Your task to perform on an android device: Clear all items from cart on newegg. Search for usb-c on newegg, select the first entry, add it to the cart, then select checkout. Image 0: 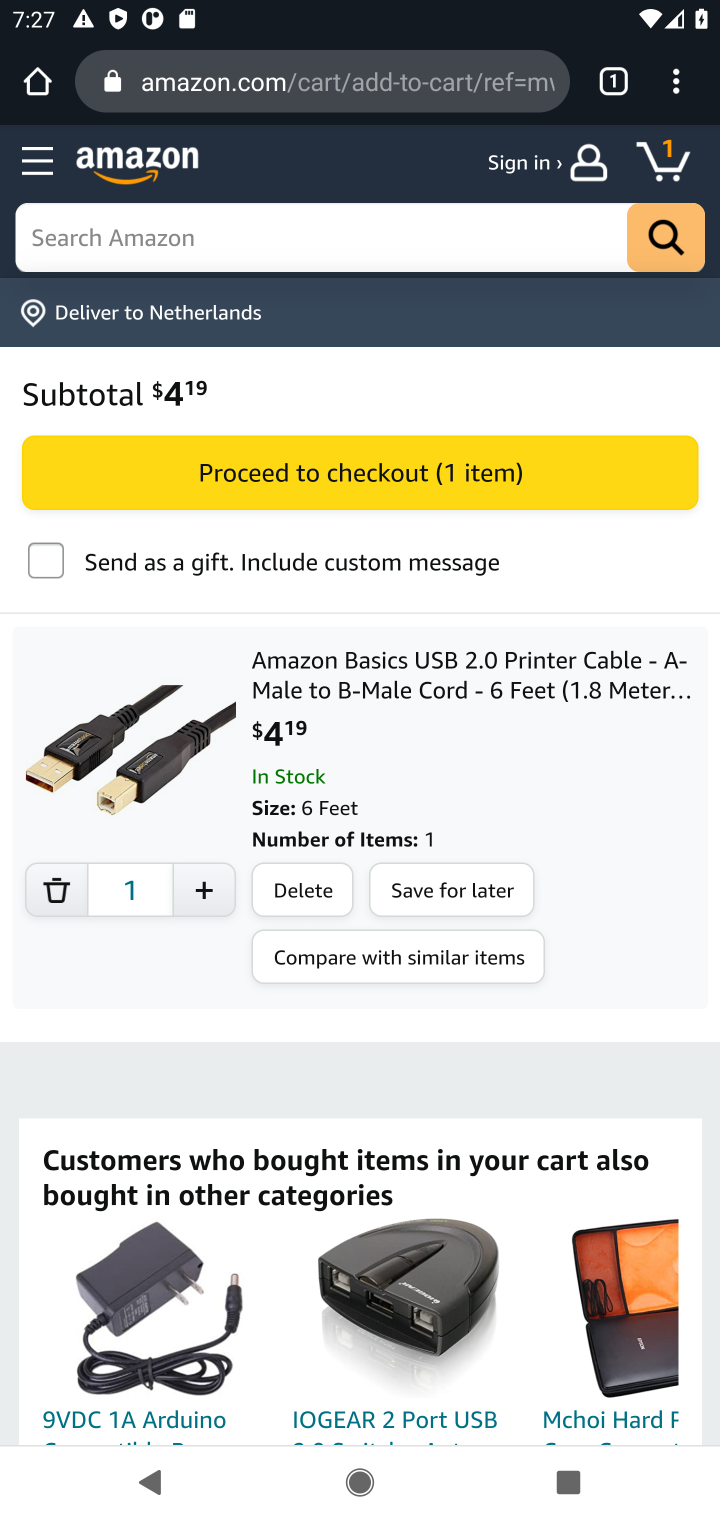
Step 0: click (236, 81)
Your task to perform on an android device: Clear all items from cart on newegg. Search for usb-c on newegg, select the first entry, add it to the cart, then select checkout. Image 1: 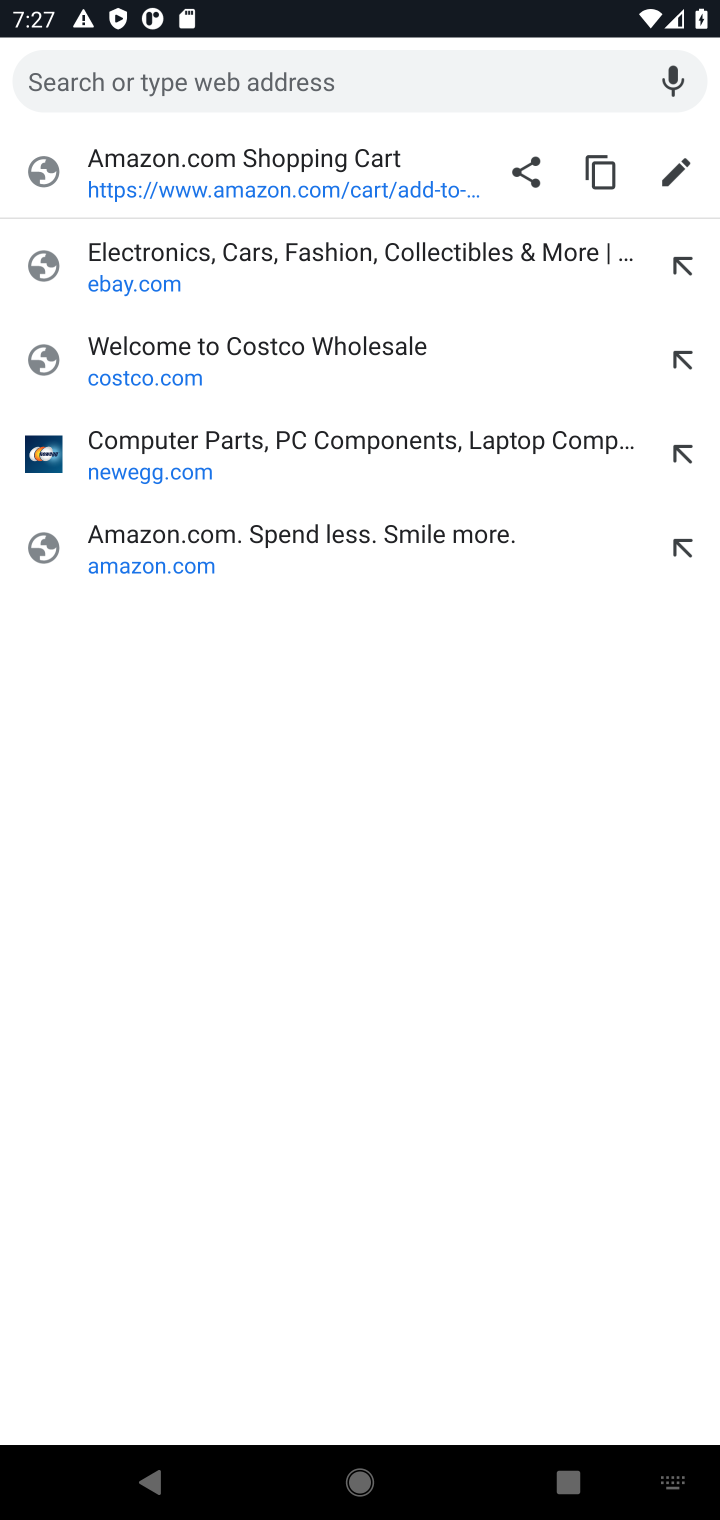
Step 1: click (115, 449)
Your task to perform on an android device: Clear all items from cart on newegg. Search for usb-c on newegg, select the first entry, add it to the cart, then select checkout. Image 2: 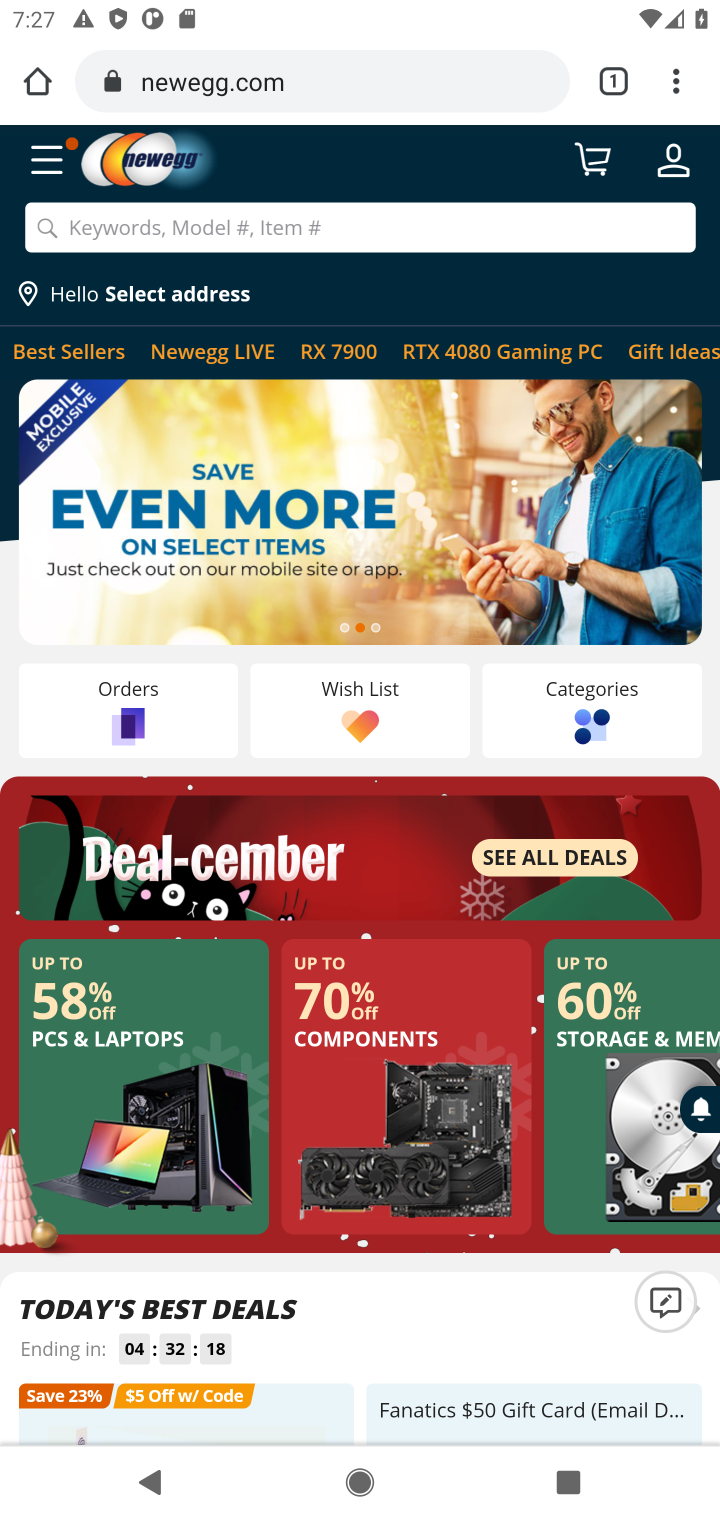
Step 2: click (598, 160)
Your task to perform on an android device: Clear all items from cart on newegg. Search for usb-c on newegg, select the first entry, add it to the cart, then select checkout. Image 3: 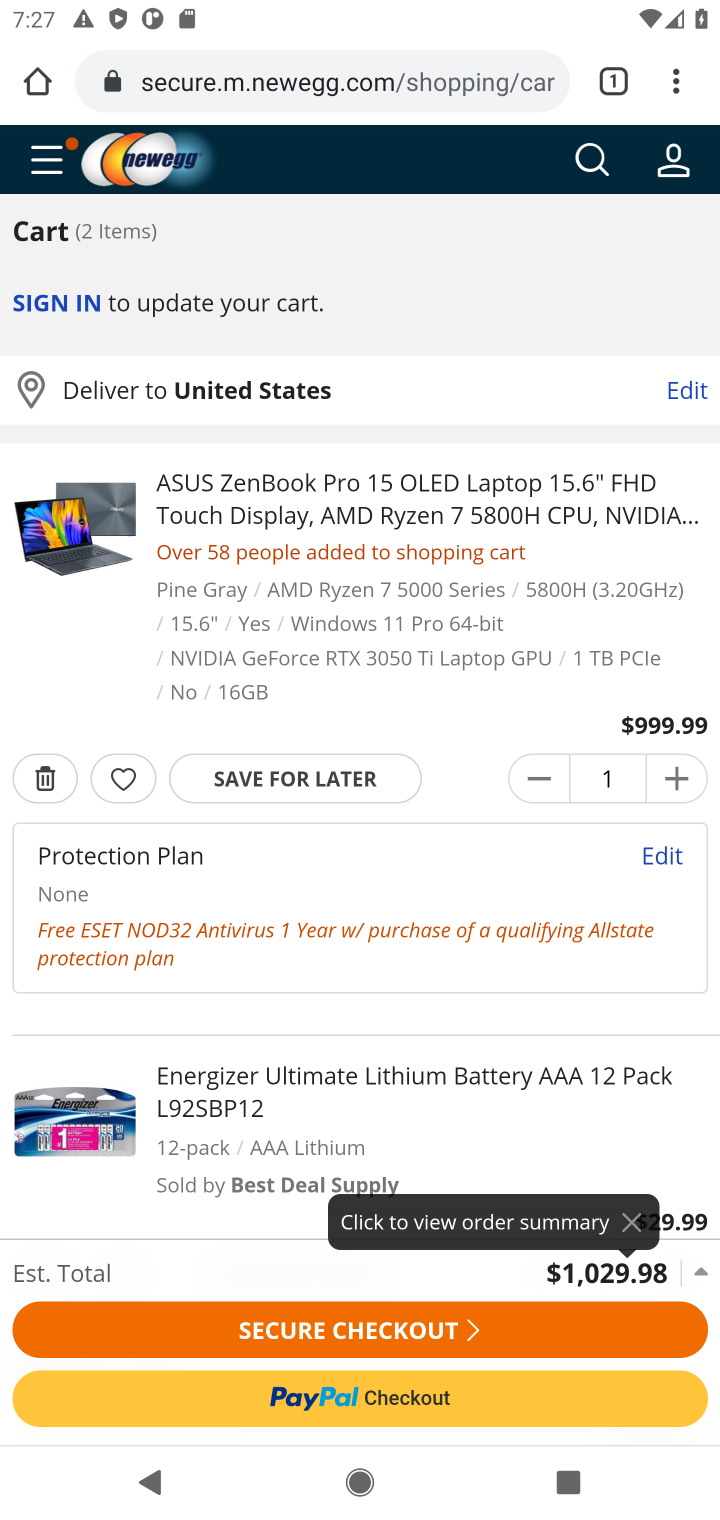
Step 3: click (45, 787)
Your task to perform on an android device: Clear all items from cart on newegg. Search for usb-c on newegg, select the first entry, add it to the cart, then select checkout. Image 4: 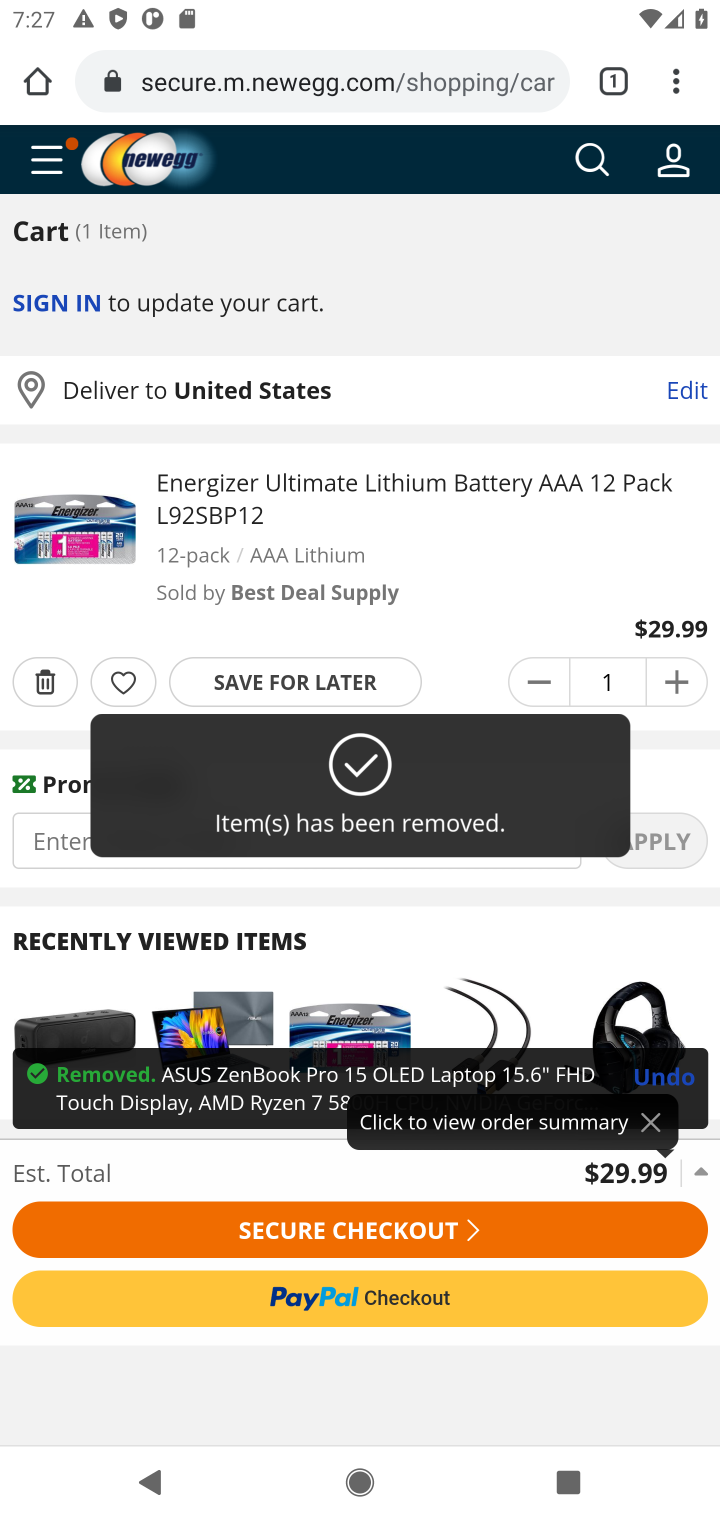
Step 4: click (36, 699)
Your task to perform on an android device: Clear all items from cart on newegg. Search for usb-c on newegg, select the first entry, add it to the cart, then select checkout. Image 5: 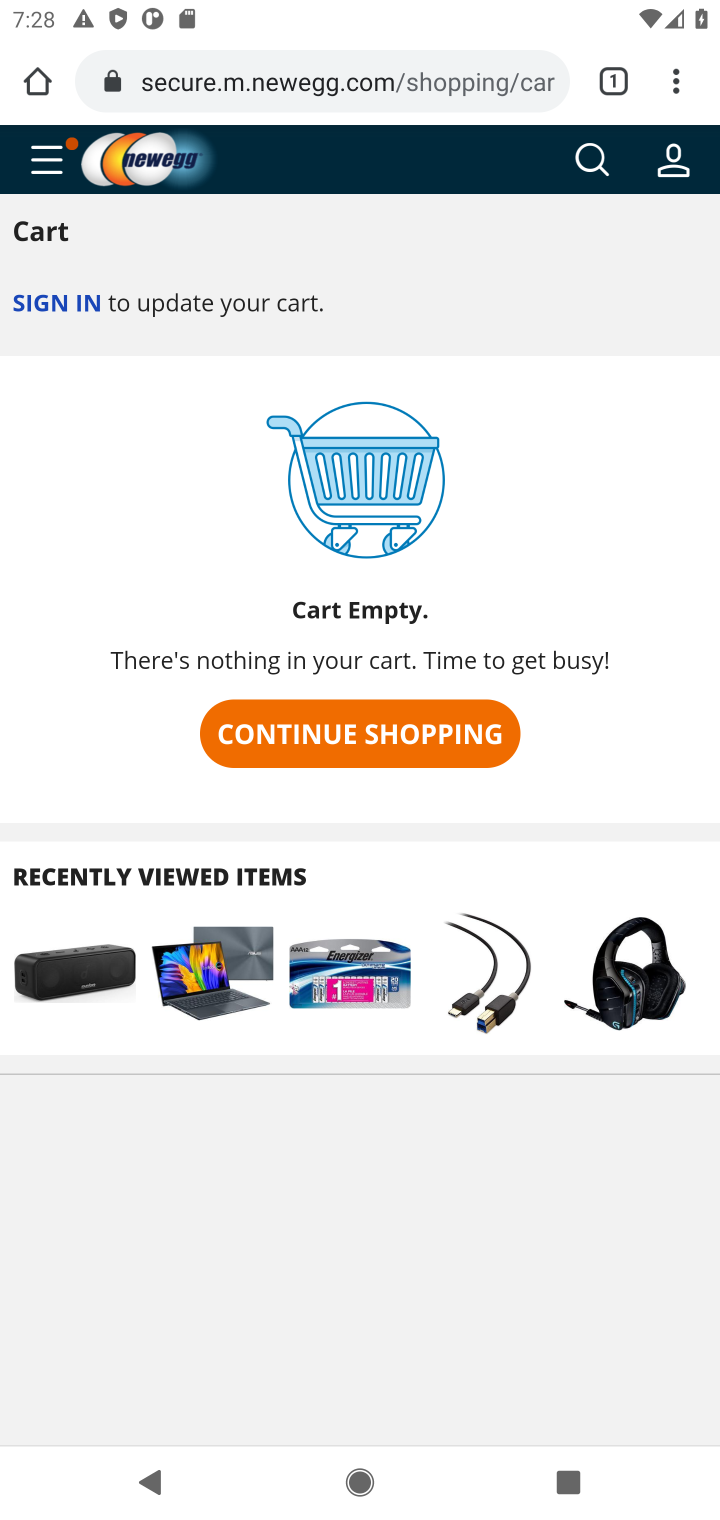
Step 5: click (603, 157)
Your task to perform on an android device: Clear all items from cart on newegg. Search for usb-c on newegg, select the first entry, add it to the cart, then select checkout. Image 6: 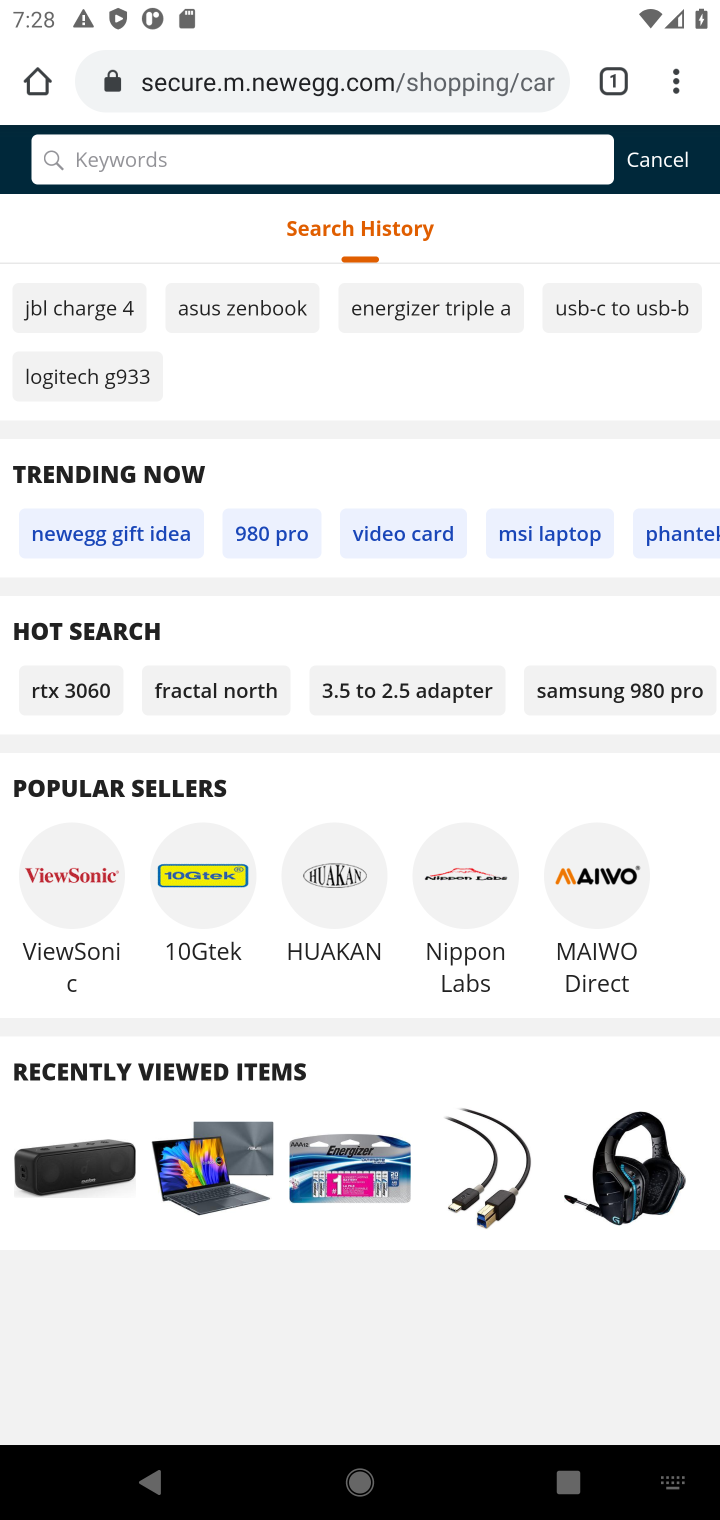
Step 6: type "usb-c"
Your task to perform on an android device: Clear all items from cart on newegg. Search for usb-c on newegg, select the first entry, add it to the cart, then select checkout. Image 7: 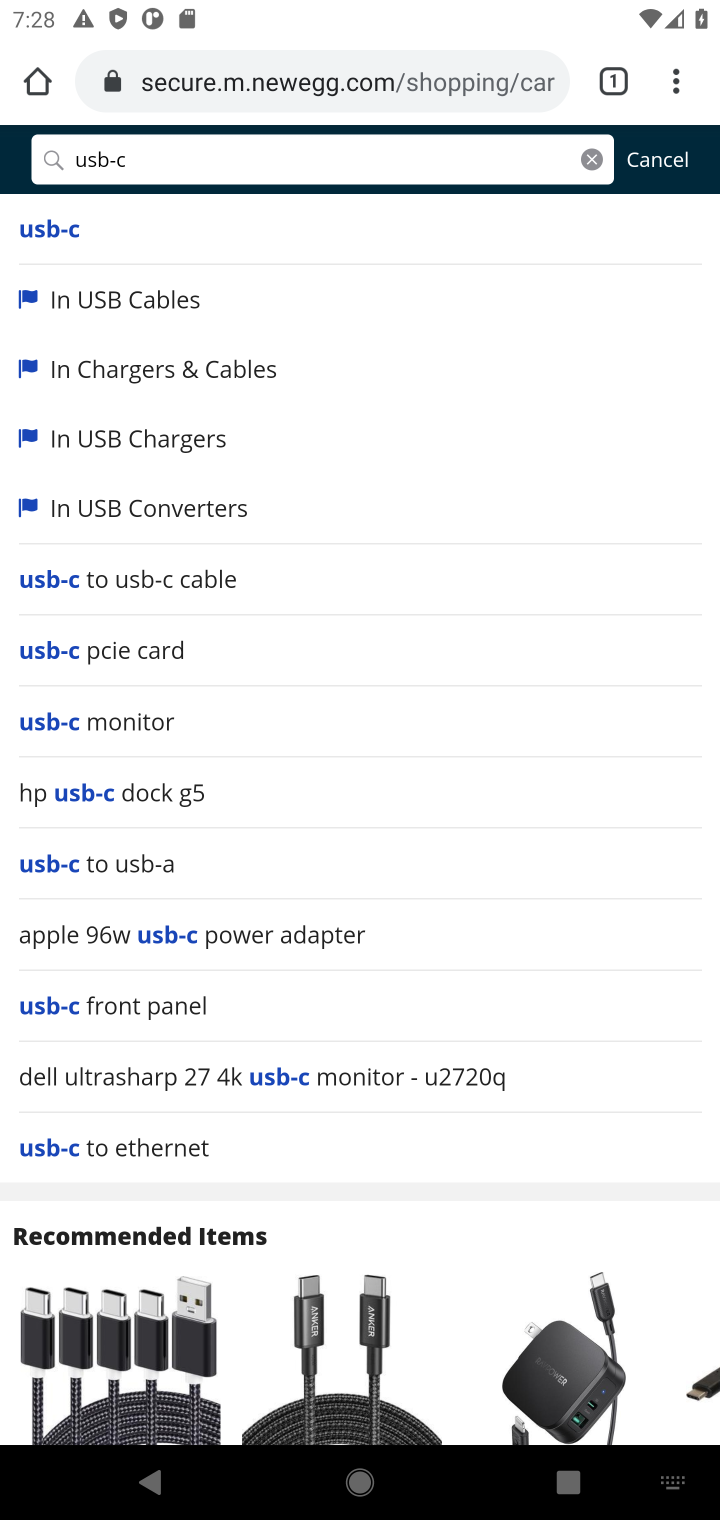
Step 7: drag from (241, 993) to (229, 610)
Your task to perform on an android device: Clear all items from cart on newegg. Search for usb-c on newegg, select the first entry, add it to the cart, then select checkout. Image 8: 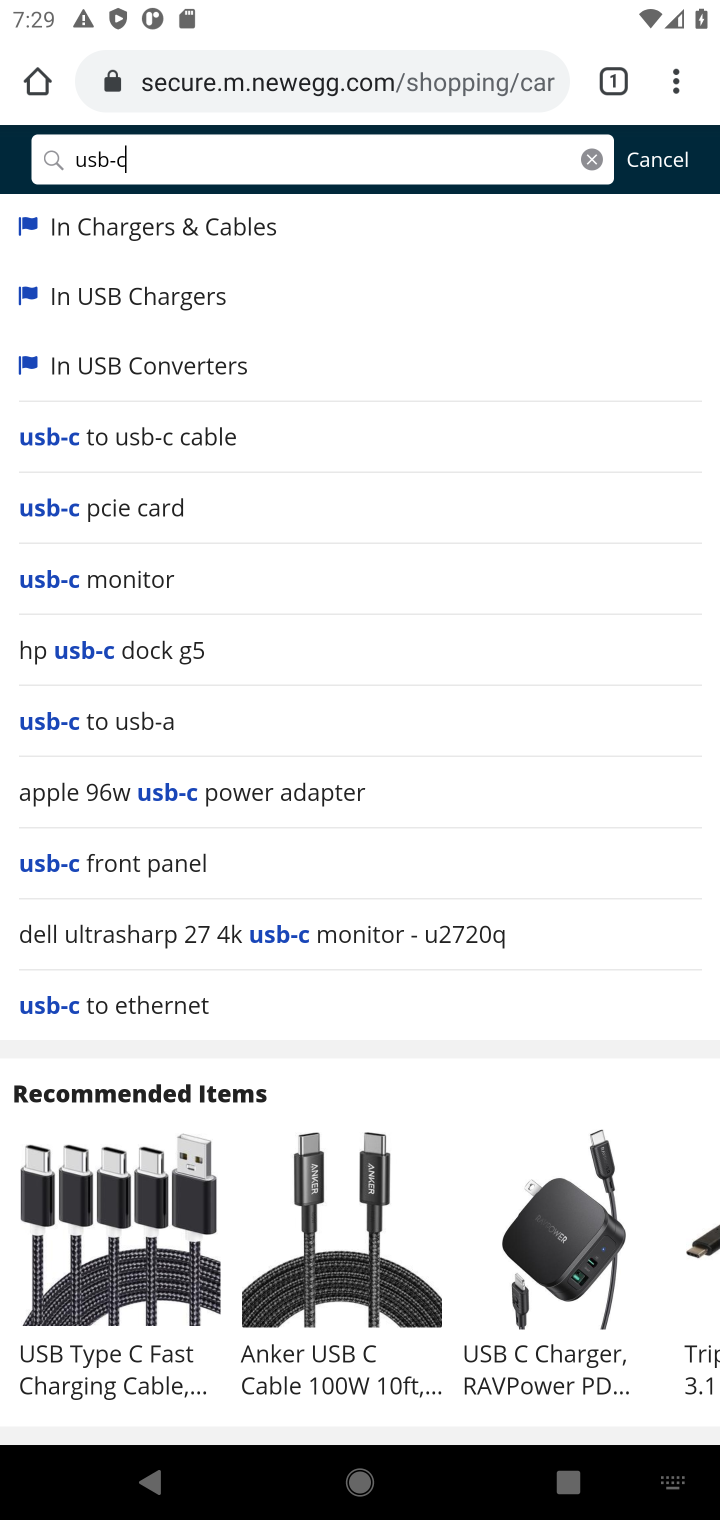
Step 8: drag from (263, 578) to (208, 947)
Your task to perform on an android device: Clear all items from cart on newegg. Search for usb-c on newegg, select the first entry, add it to the cart, then select checkout. Image 9: 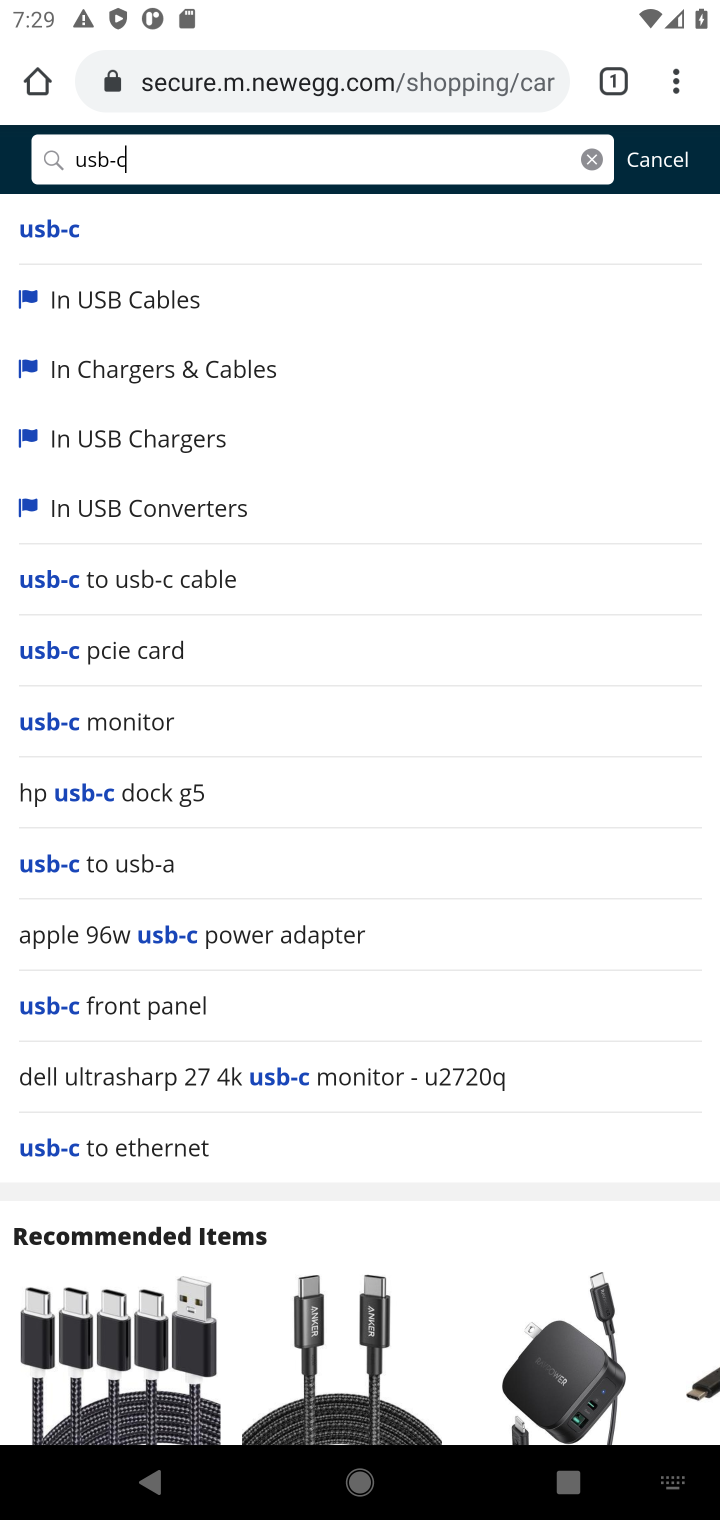
Step 9: click (28, 235)
Your task to perform on an android device: Clear all items from cart on newegg. Search for usb-c on newegg, select the first entry, add it to the cart, then select checkout. Image 10: 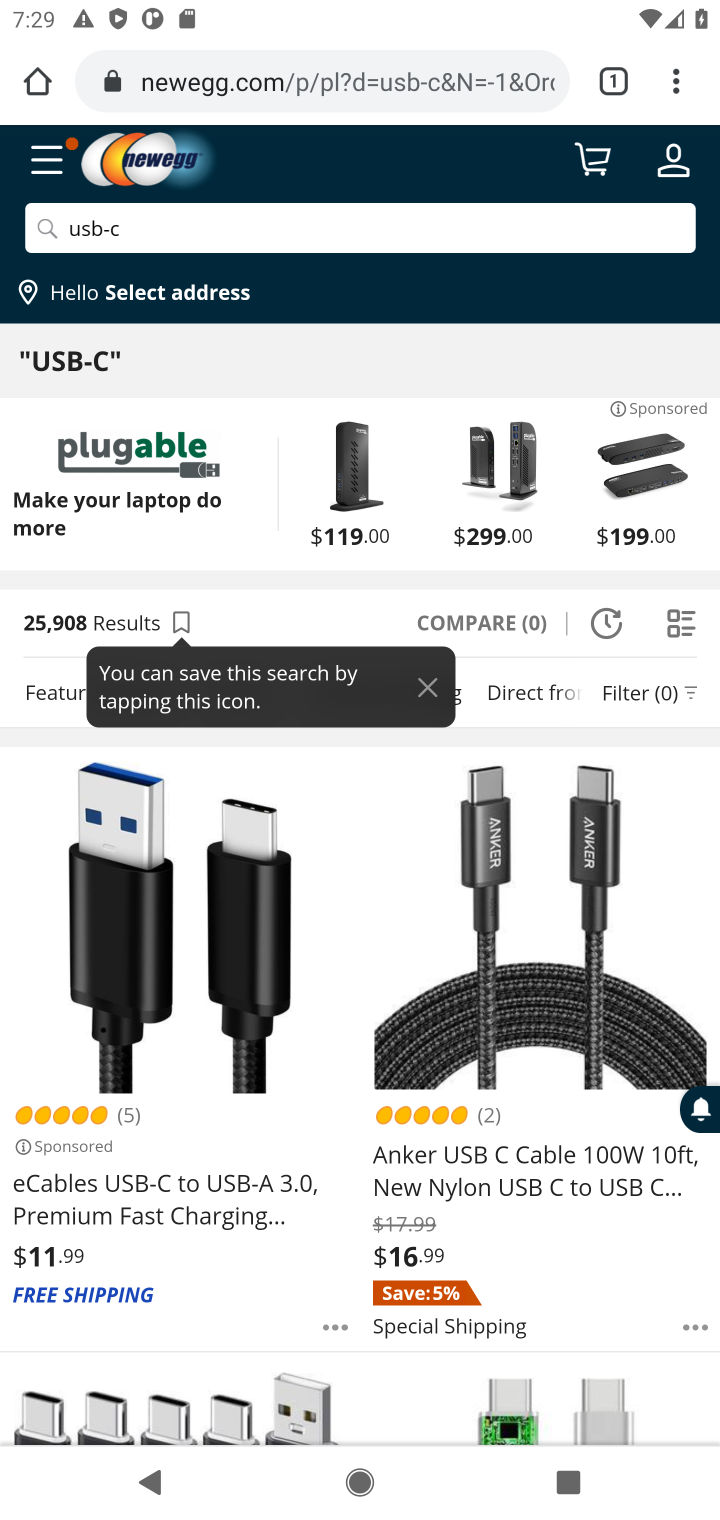
Step 10: click (109, 1228)
Your task to perform on an android device: Clear all items from cart on newegg. Search for usb-c on newegg, select the first entry, add it to the cart, then select checkout. Image 11: 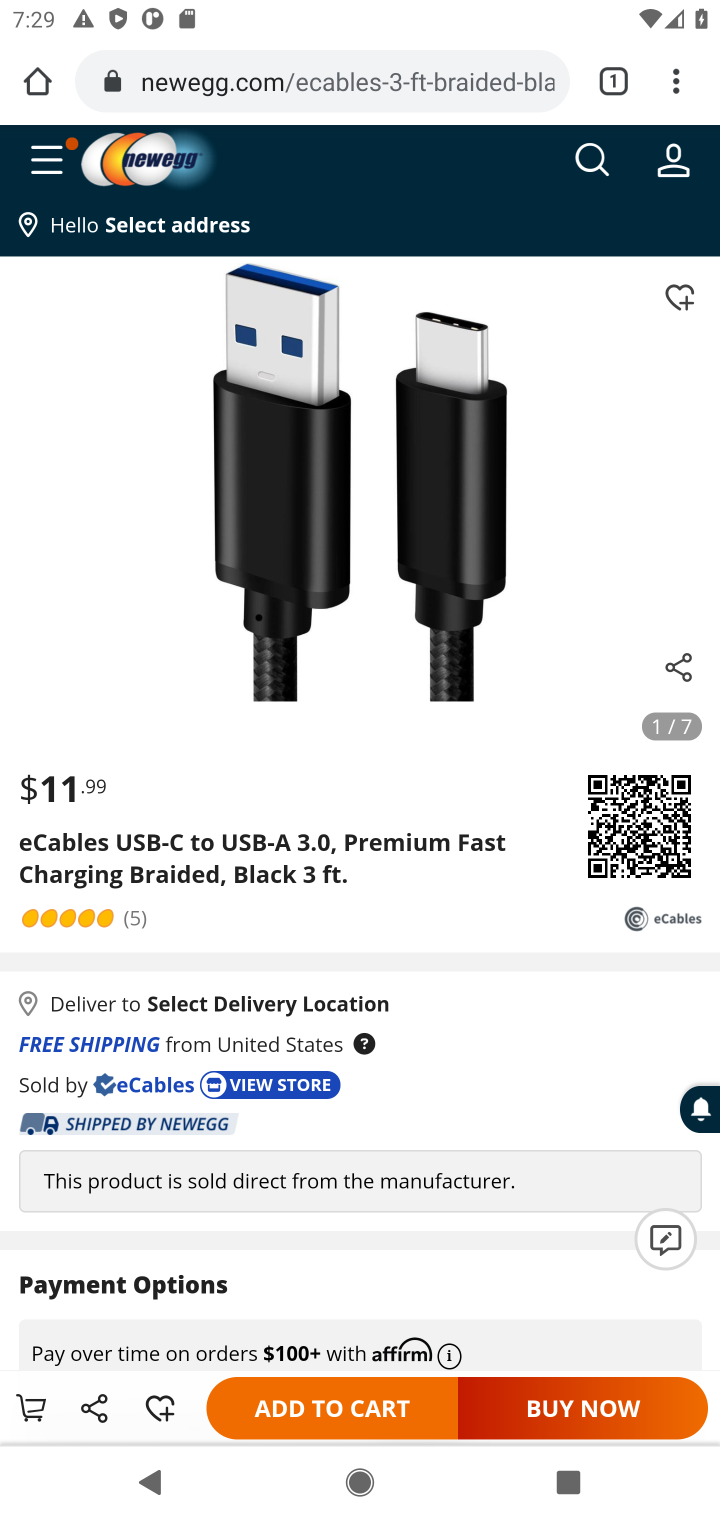
Step 11: click (287, 1411)
Your task to perform on an android device: Clear all items from cart on newegg. Search for usb-c on newegg, select the first entry, add it to the cart, then select checkout. Image 12: 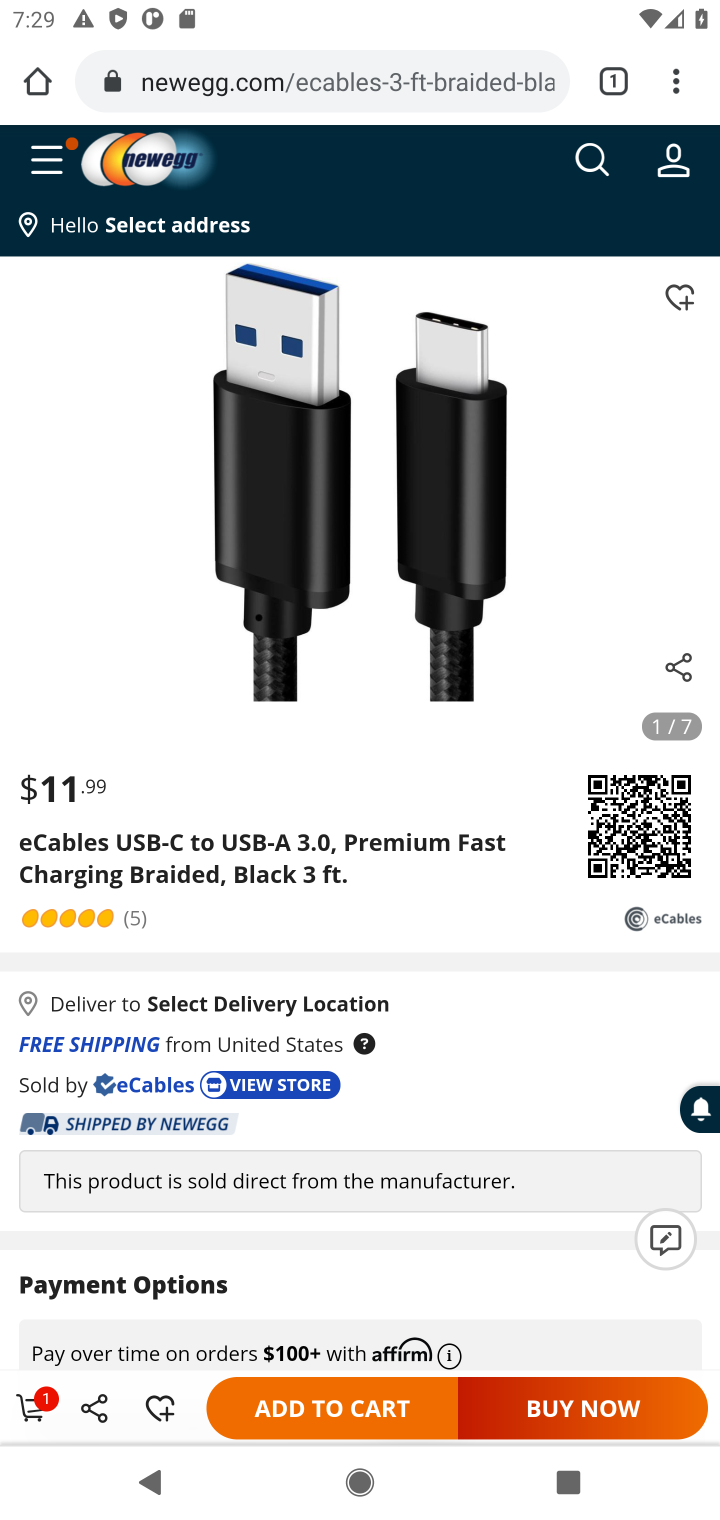
Step 12: click (32, 1412)
Your task to perform on an android device: Clear all items from cart on newegg. Search for usb-c on newegg, select the first entry, add it to the cart, then select checkout. Image 13: 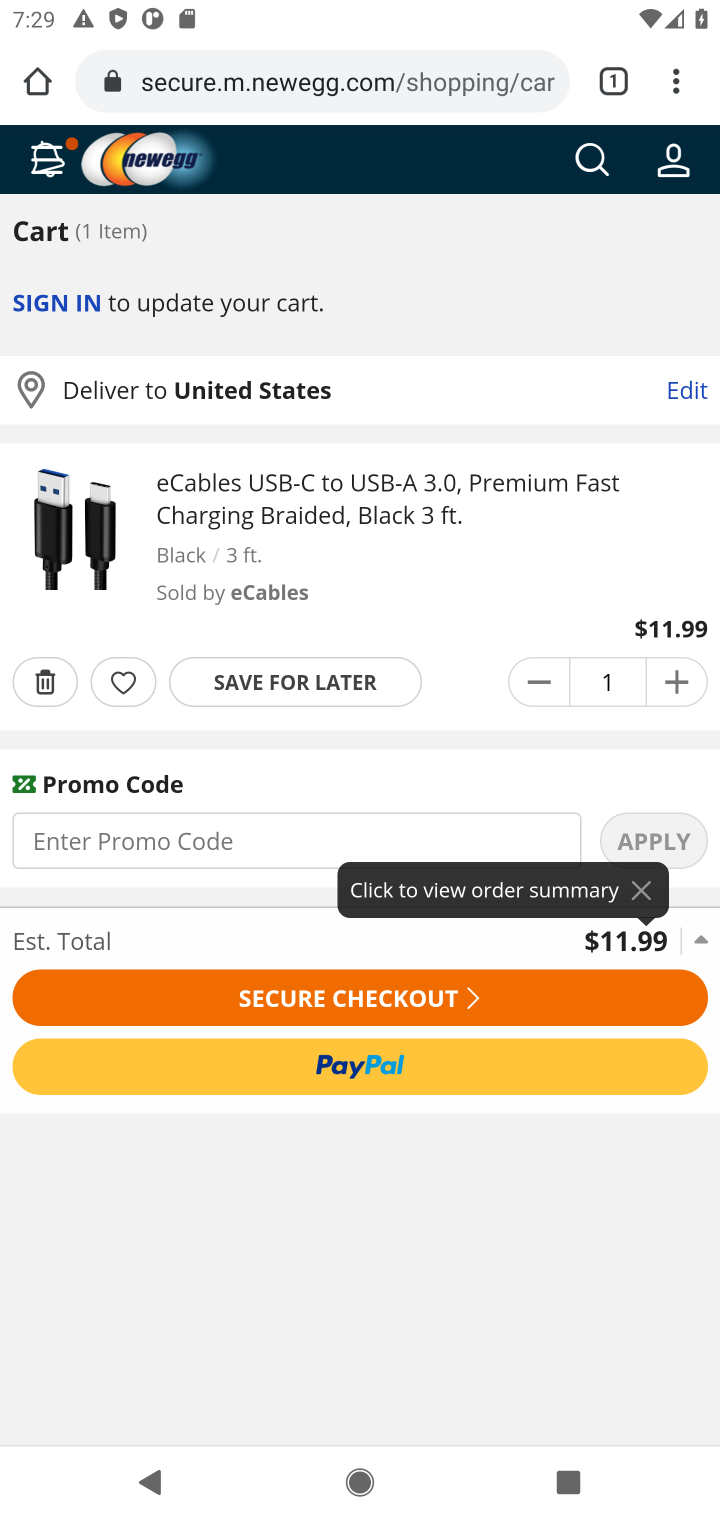
Step 13: click (410, 996)
Your task to perform on an android device: Clear all items from cart on newegg. Search for usb-c on newegg, select the first entry, add it to the cart, then select checkout. Image 14: 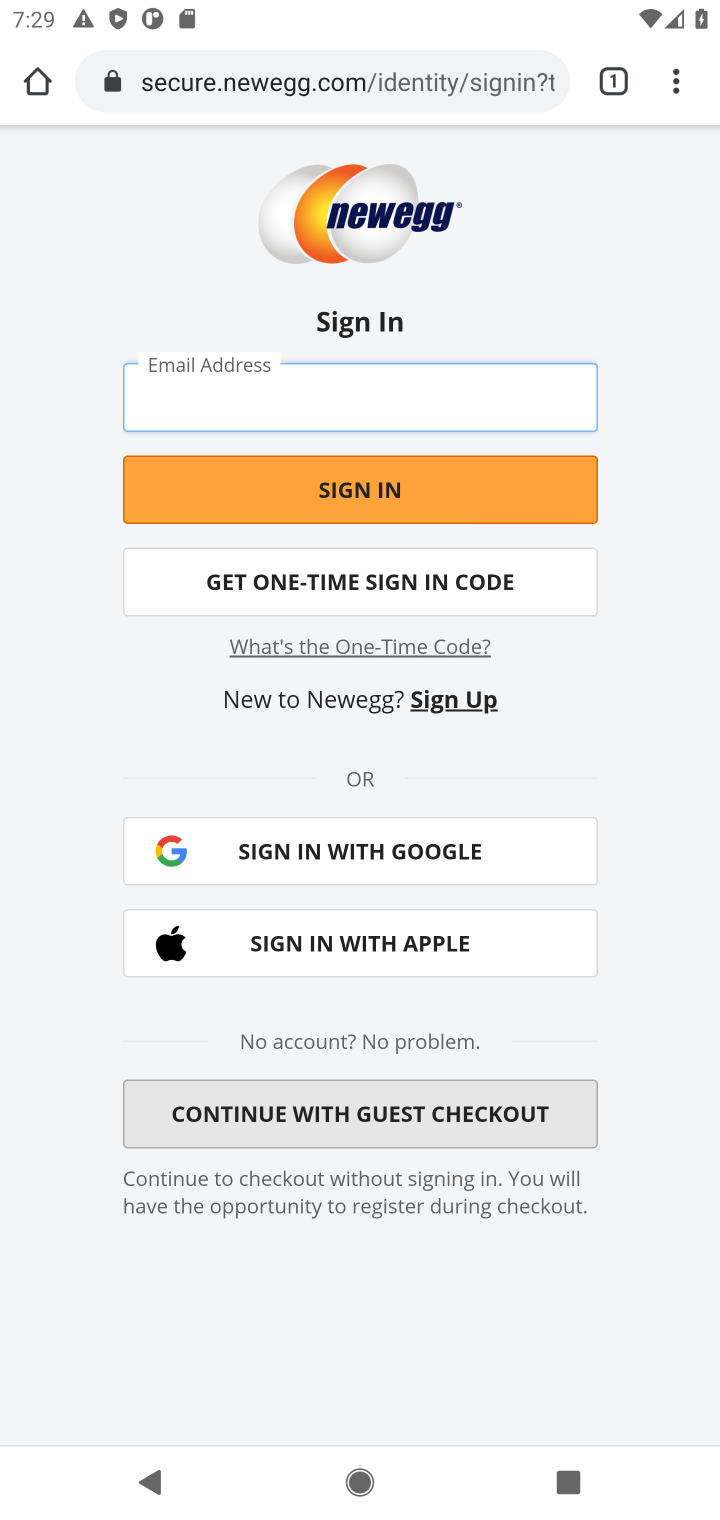
Step 14: task complete